Your task to perform on an android device: Open the Play Movies app and select the watchlist tab. Image 0: 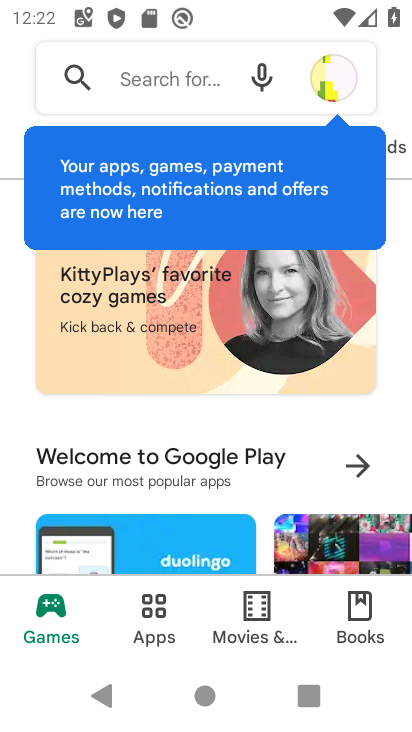
Step 0: press home button
Your task to perform on an android device: Open the Play Movies app and select the watchlist tab. Image 1: 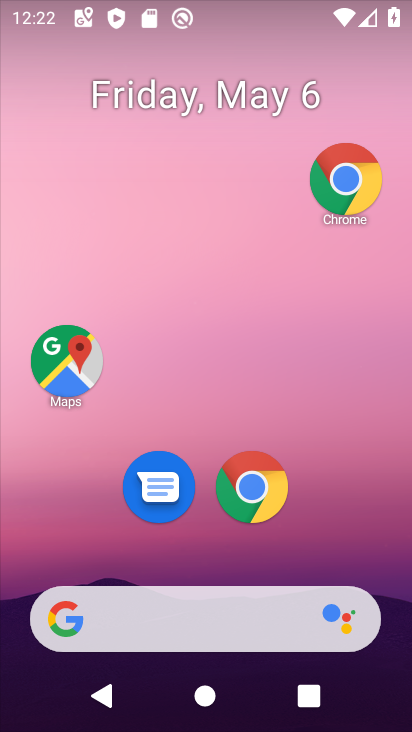
Step 1: drag from (332, 511) to (262, 163)
Your task to perform on an android device: Open the Play Movies app and select the watchlist tab. Image 2: 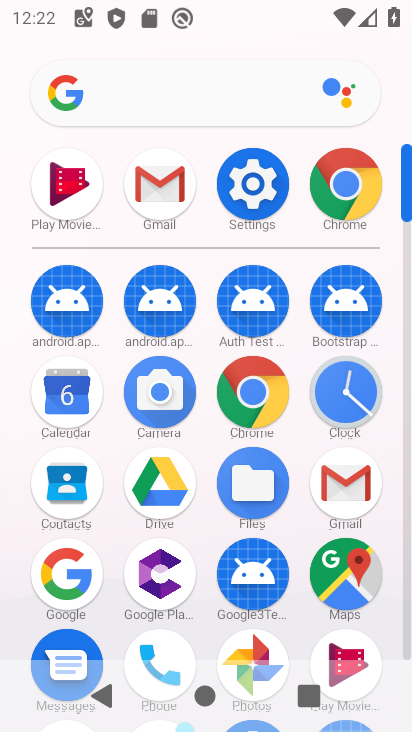
Step 2: click (350, 659)
Your task to perform on an android device: Open the Play Movies app and select the watchlist tab. Image 3: 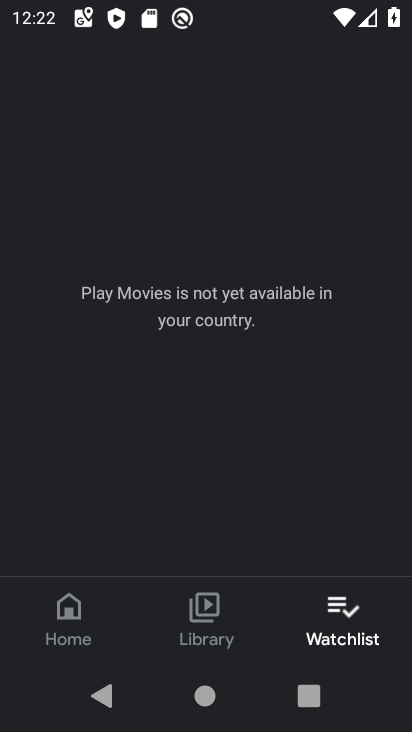
Step 3: task complete